Your task to perform on an android device: check android version Image 0: 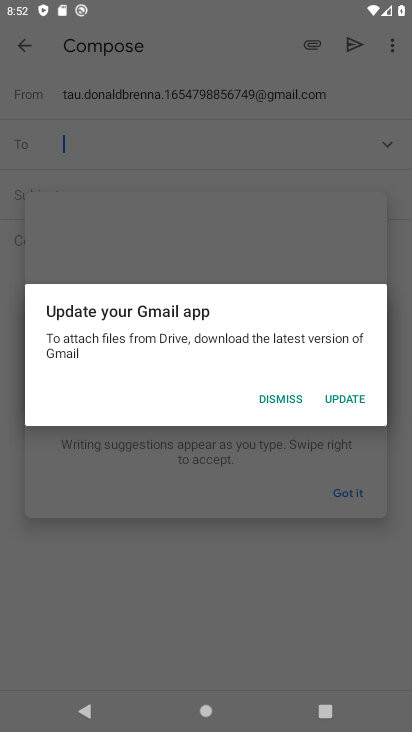
Step 0: press home button
Your task to perform on an android device: check android version Image 1: 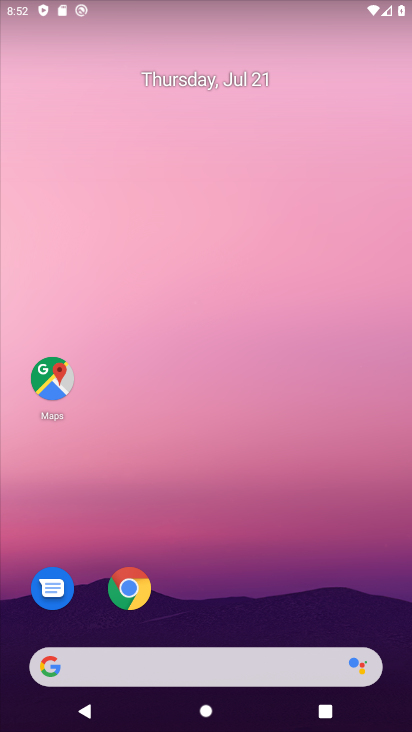
Step 1: drag from (393, 707) to (219, 145)
Your task to perform on an android device: check android version Image 2: 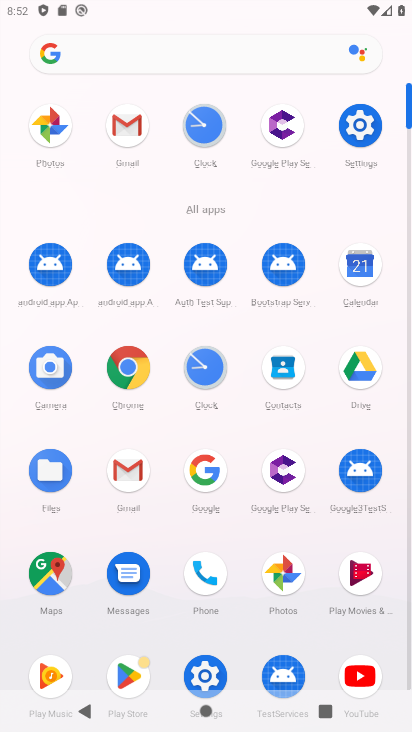
Step 2: click (358, 130)
Your task to perform on an android device: check android version Image 3: 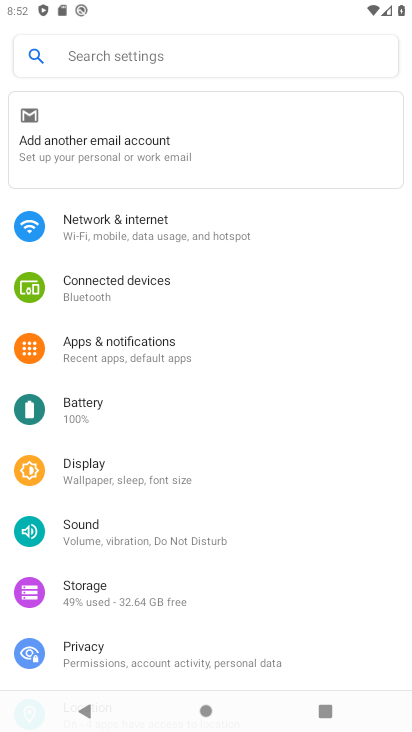
Step 3: drag from (284, 635) to (104, 145)
Your task to perform on an android device: check android version Image 4: 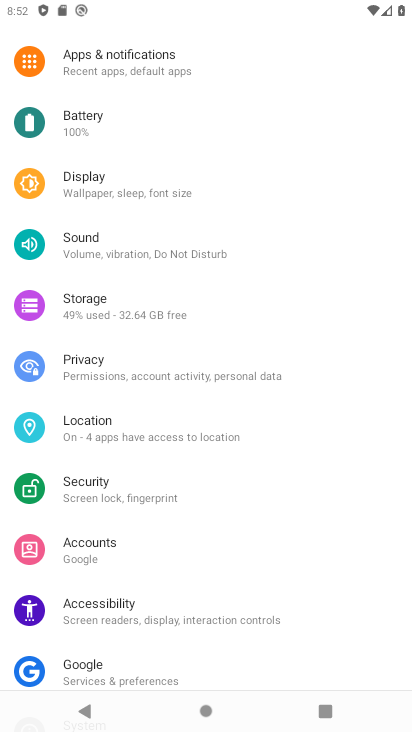
Step 4: drag from (341, 677) to (265, 40)
Your task to perform on an android device: check android version Image 5: 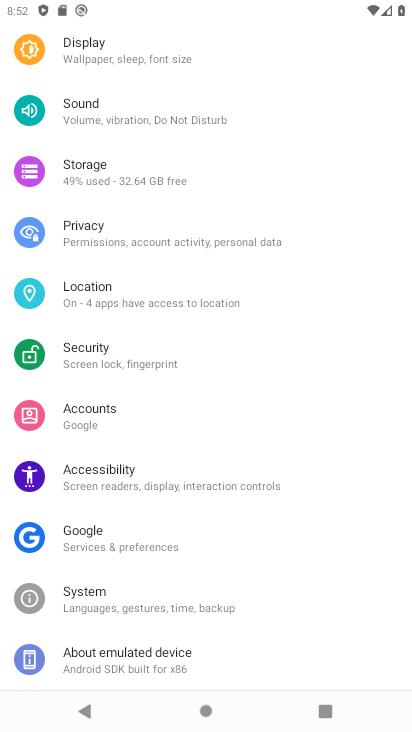
Step 5: click (132, 646)
Your task to perform on an android device: check android version Image 6: 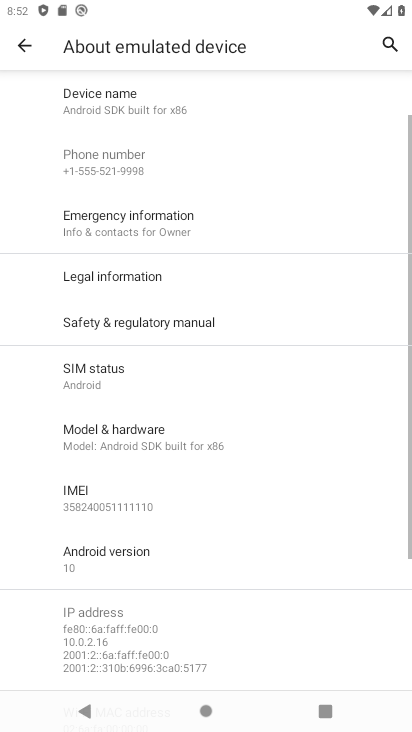
Step 6: click (122, 551)
Your task to perform on an android device: check android version Image 7: 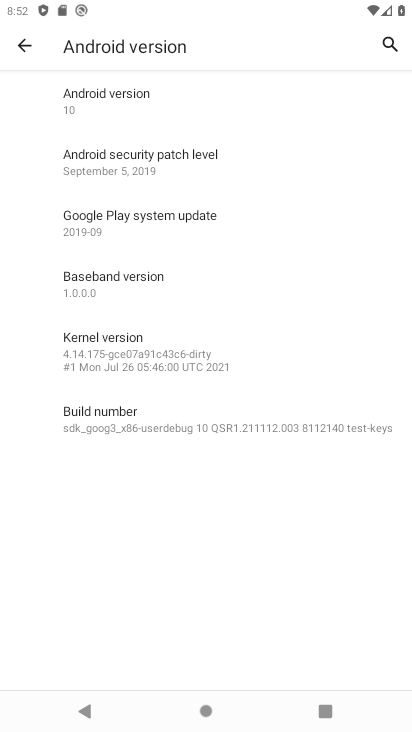
Step 7: click (128, 91)
Your task to perform on an android device: check android version Image 8: 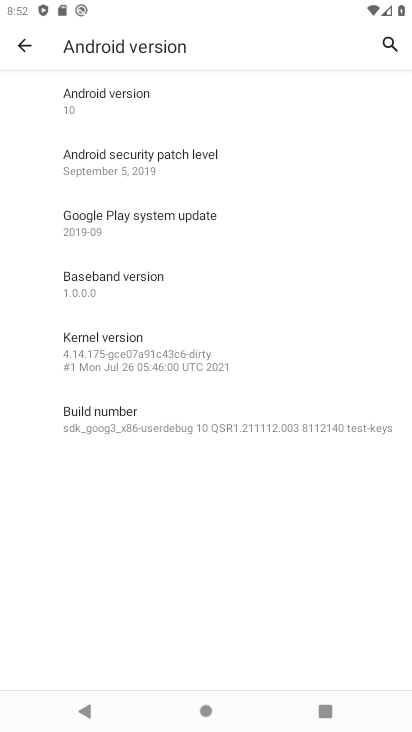
Step 8: task complete